Your task to perform on an android device: turn on data saver in the chrome app Image 0: 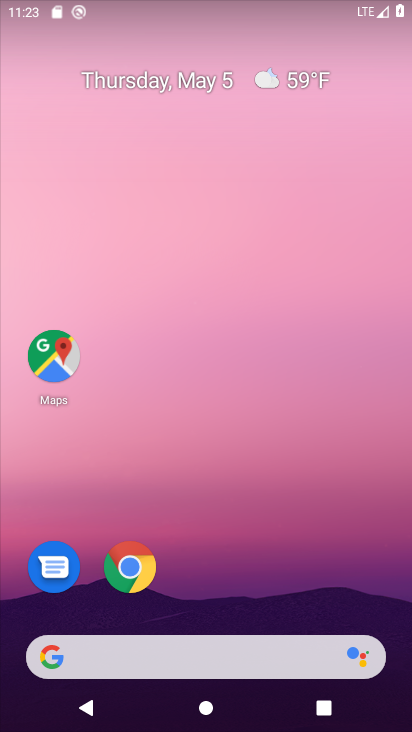
Step 0: click (145, 568)
Your task to perform on an android device: turn on data saver in the chrome app Image 1: 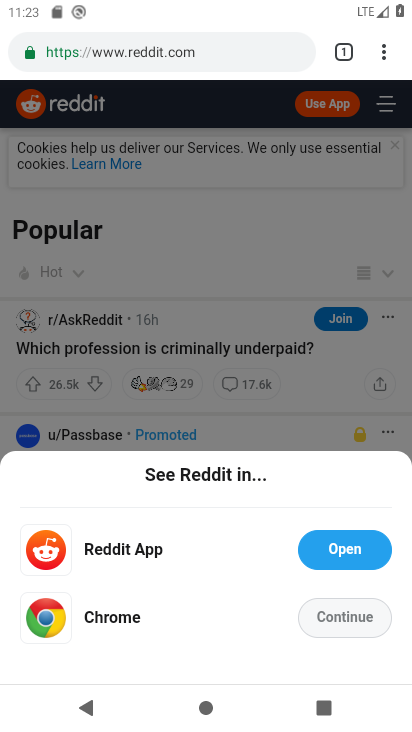
Step 1: drag from (388, 48) to (218, 602)
Your task to perform on an android device: turn on data saver in the chrome app Image 2: 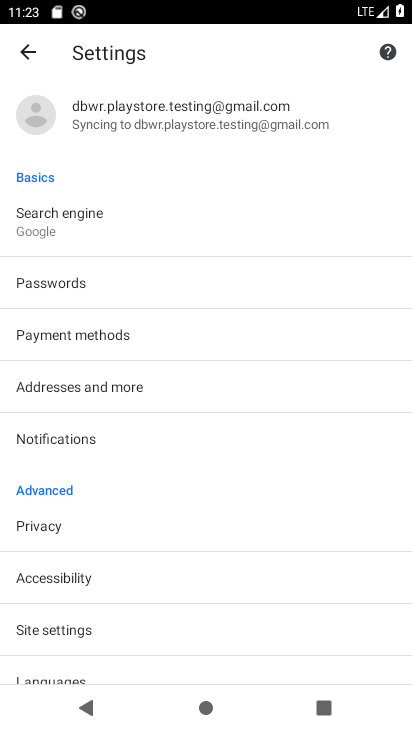
Step 2: drag from (159, 621) to (176, 420)
Your task to perform on an android device: turn on data saver in the chrome app Image 3: 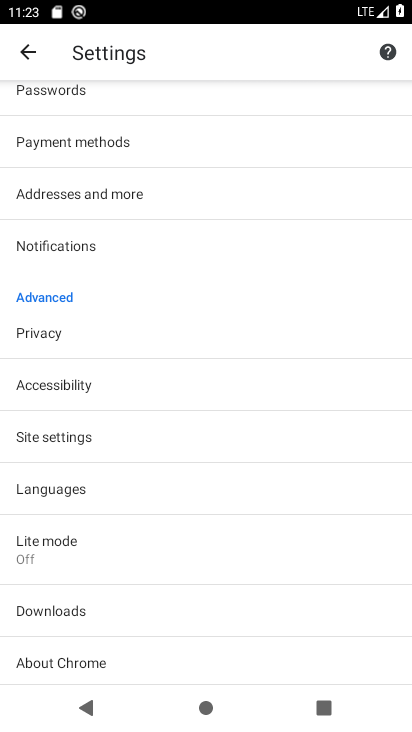
Step 3: click (47, 551)
Your task to perform on an android device: turn on data saver in the chrome app Image 4: 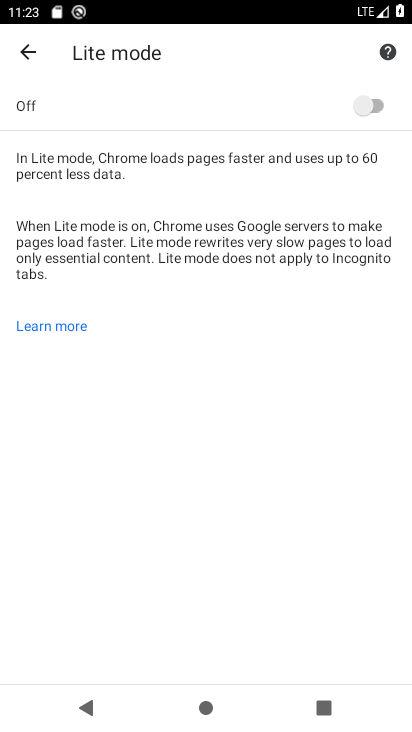
Step 4: click (363, 105)
Your task to perform on an android device: turn on data saver in the chrome app Image 5: 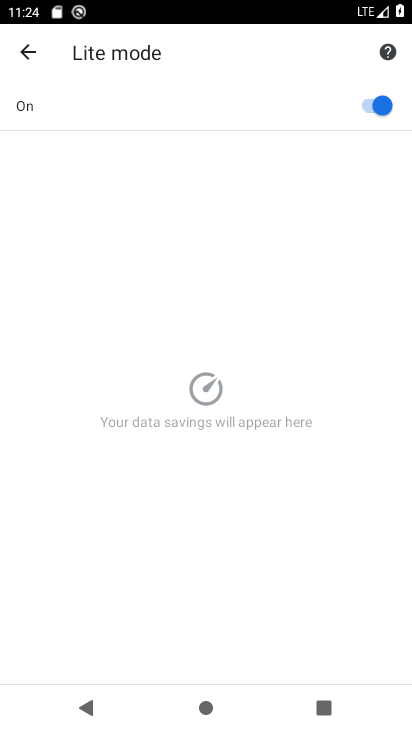
Step 5: task complete